Your task to perform on an android device: set default search engine in the chrome app Image 0: 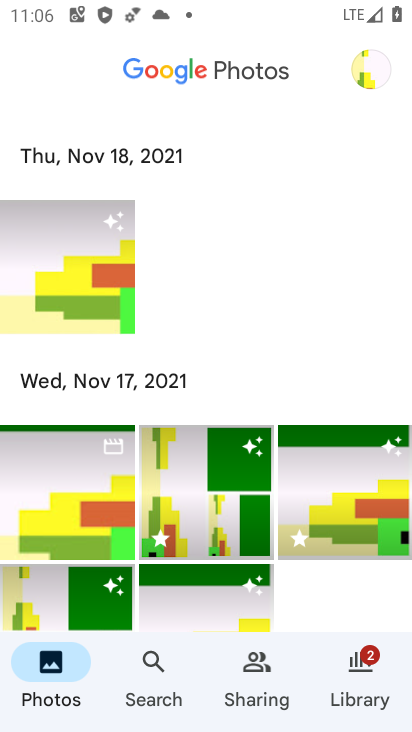
Step 0: press home button
Your task to perform on an android device: set default search engine in the chrome app Image 1: 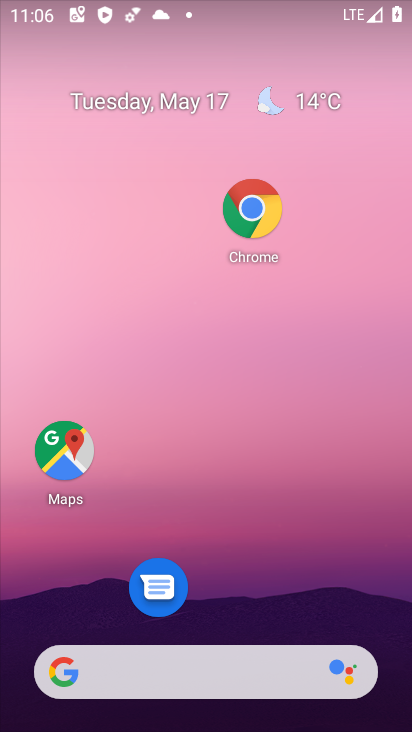
Step 1: click (263, 218)
Your task to perform on an android device: set default search engine in the chrome app Image 2: 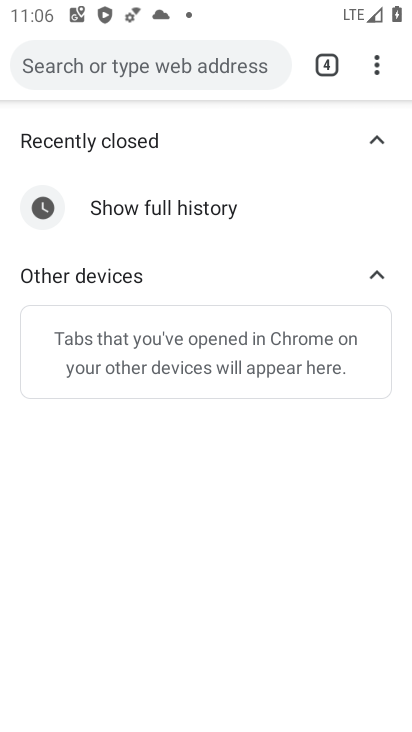
Step 2: click (385, 75)
Your task to perform on an android device: set default search engine in the chrome app Image 3: 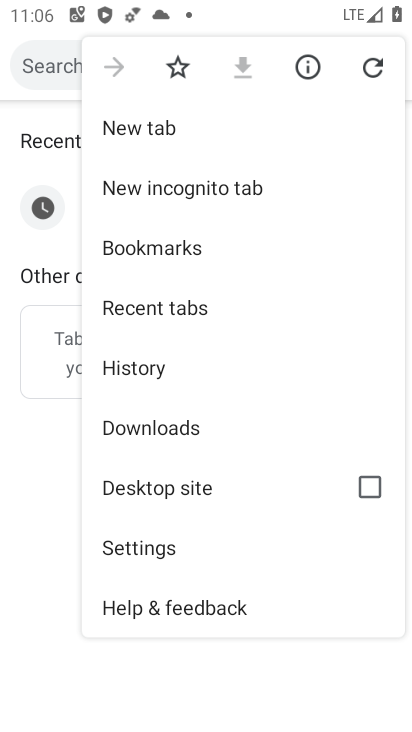
Step 3: click (169, 547)
Your task to perform on an android device: set default search engine in the chrome app Image 4: 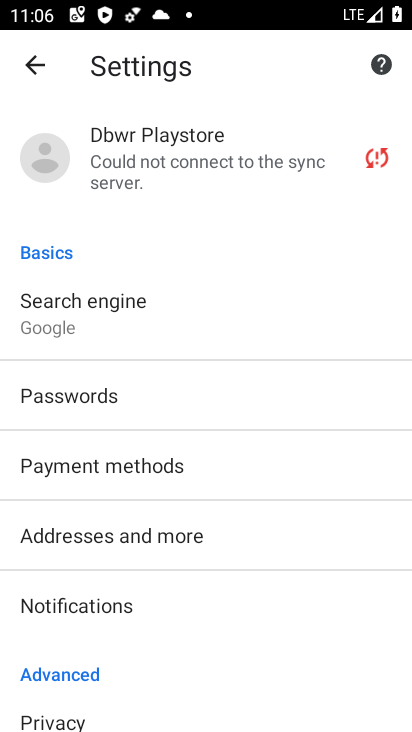
Step 4: drag from (223, 589) to (250, 116)
Your task to perform on an android device: set default search engine in the chrome app Image 5: 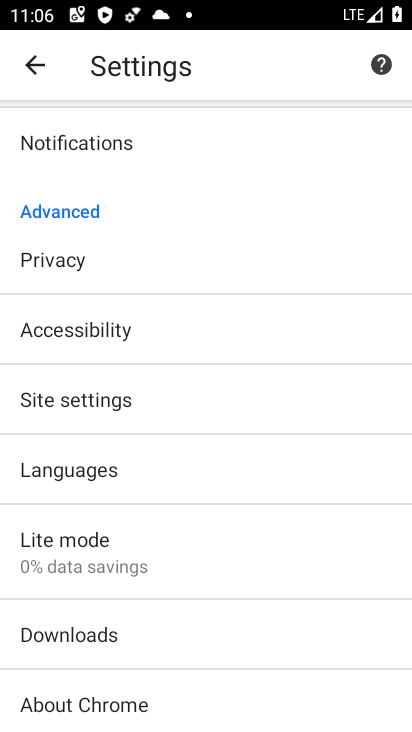
Step 5: drag from (261, 184) to (309, 655)
Your task to perform on an android device: set default search engine in the chrome app Image 6: 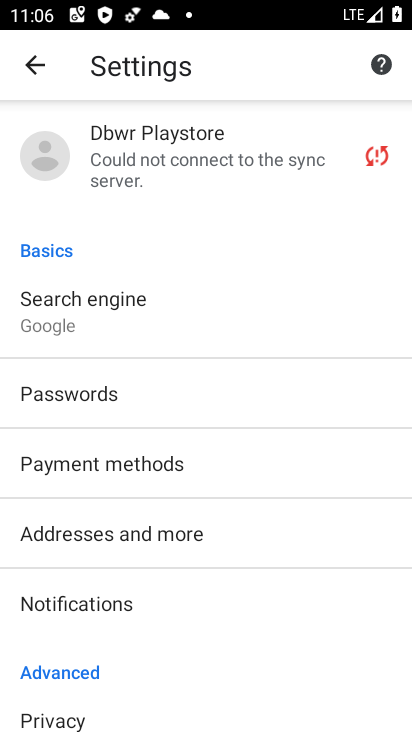
Step 6: click (166, 302)
Your task to perform on an android device: set default search engine in the chrome app Image 7: 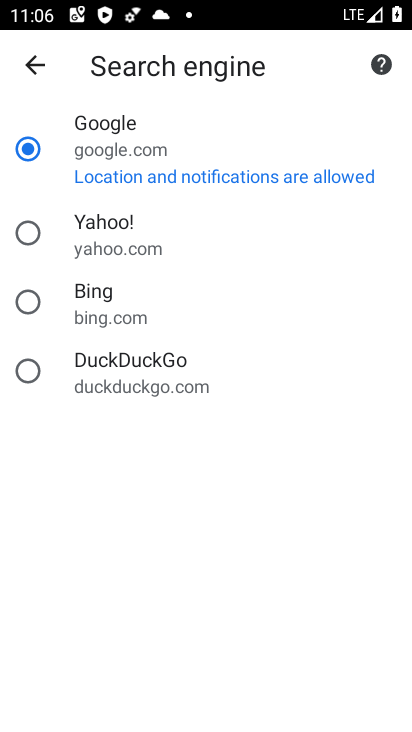
Step 7: task complete